Your task to perform on an android device: Show the shopping cart on amazon.com. Search for alienware area 51 on amazon.com, select the first entry, and add it to the cart. Image 0: 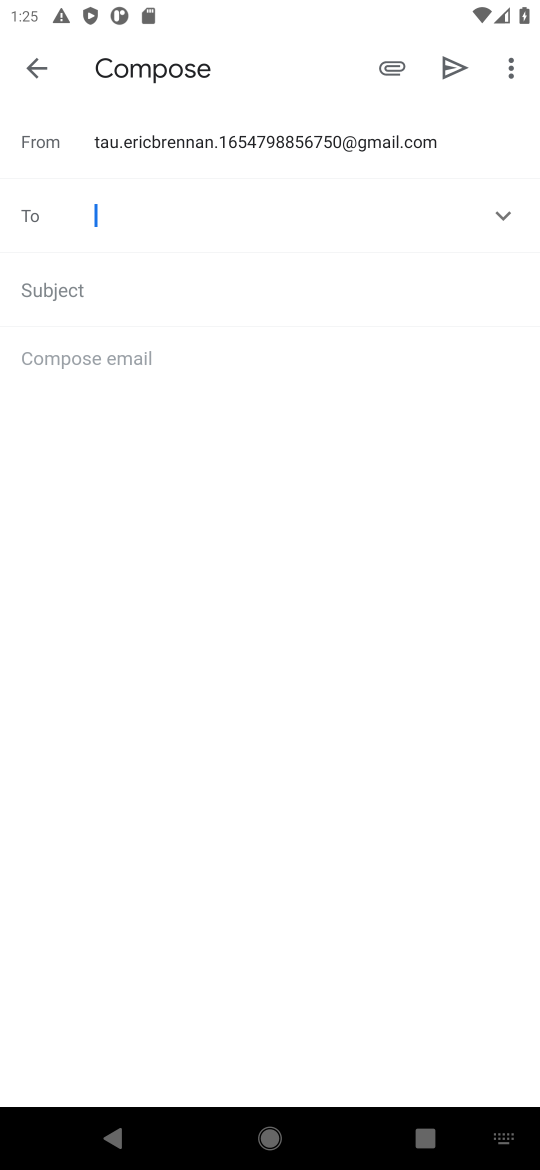
Step 0: press home button
Your task to perform on an android device: Show the shopping cart on amazon.com. Search for alienware area 51 on amazon.com, select the first entry, and add it to the cart. Image 1: 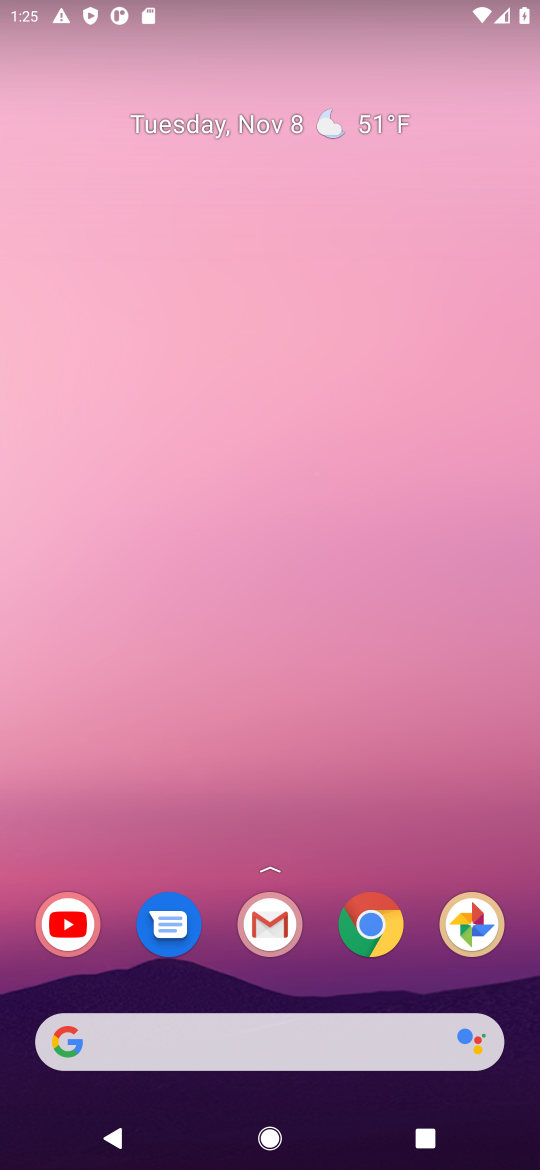
Step 1: click (365, 916)
Your task to perform on an android device: Show the shopping cart on amazon.com. Search for alienware area 51 on amazon.com, select the first entry, and add it to the cart. Image 2: 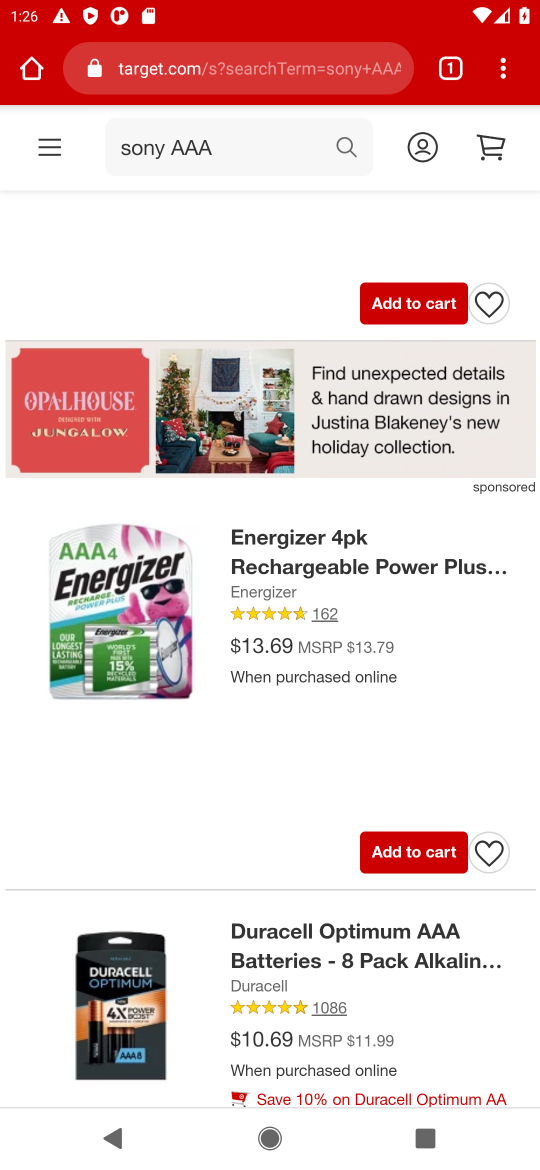
Step 2: click (272, 59)
Your task to perform on an android device: Show the shopping cart on amazon.com. Search for alienware area 51 on amazon.com, select the first entry, and add it to the cart. Image 3: 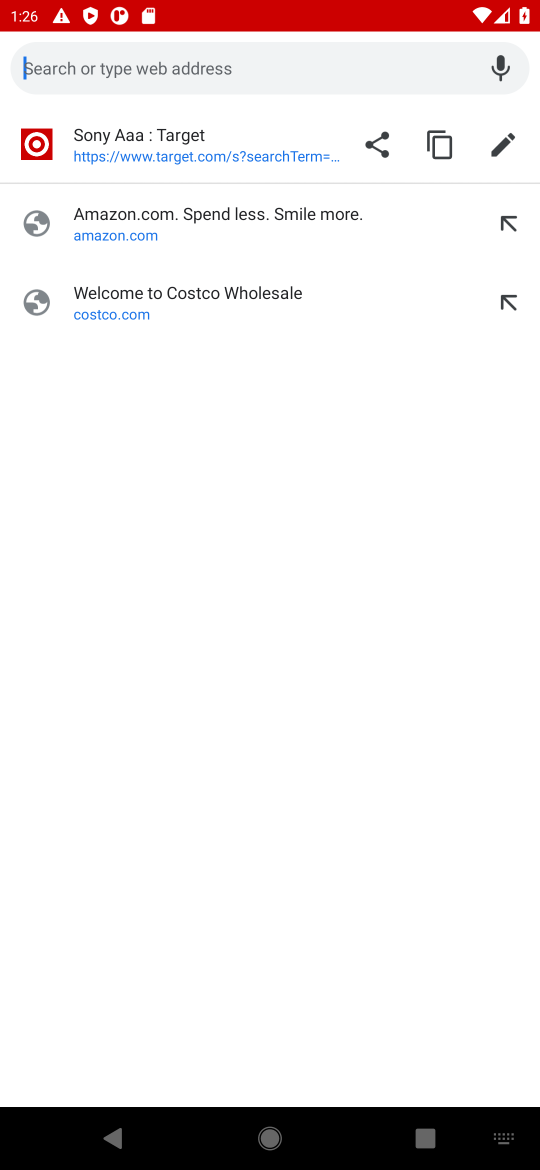
Step 3: click (113, 220)
Your task to perform on an android device: Show the shopping cart on amazon.com. Search for alienware area 51 on amazon.com, select the first entry, and add it to the cart. Image 4: 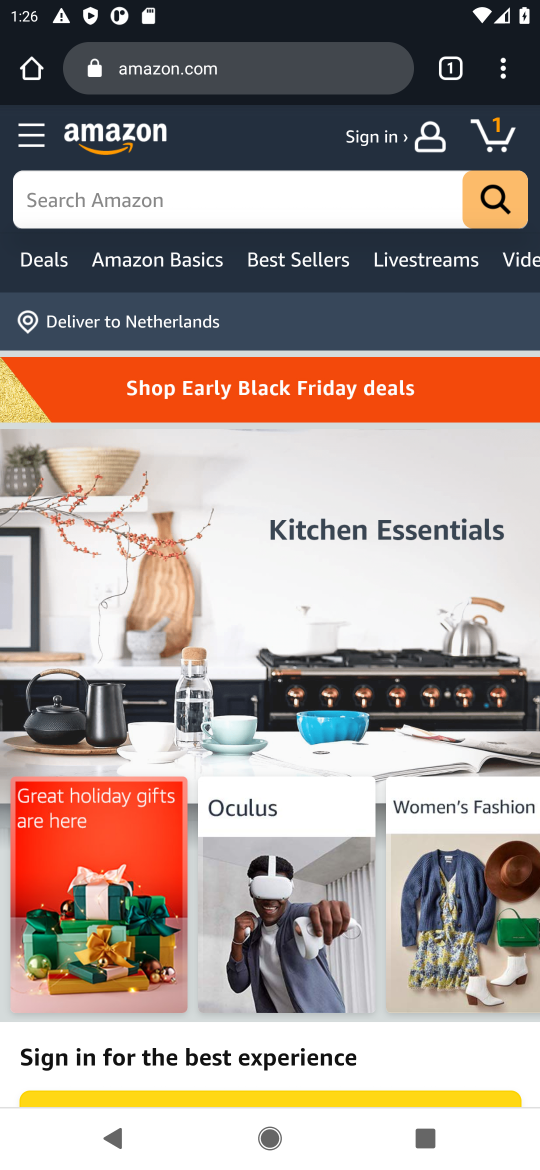
Step 4: click (489, 133)
Your task to perform on an android device: Show the shopping cart on amazon.com. Search for alienware area 51 on amazon.com, select the first entry, and add it to the cart. Image 5: 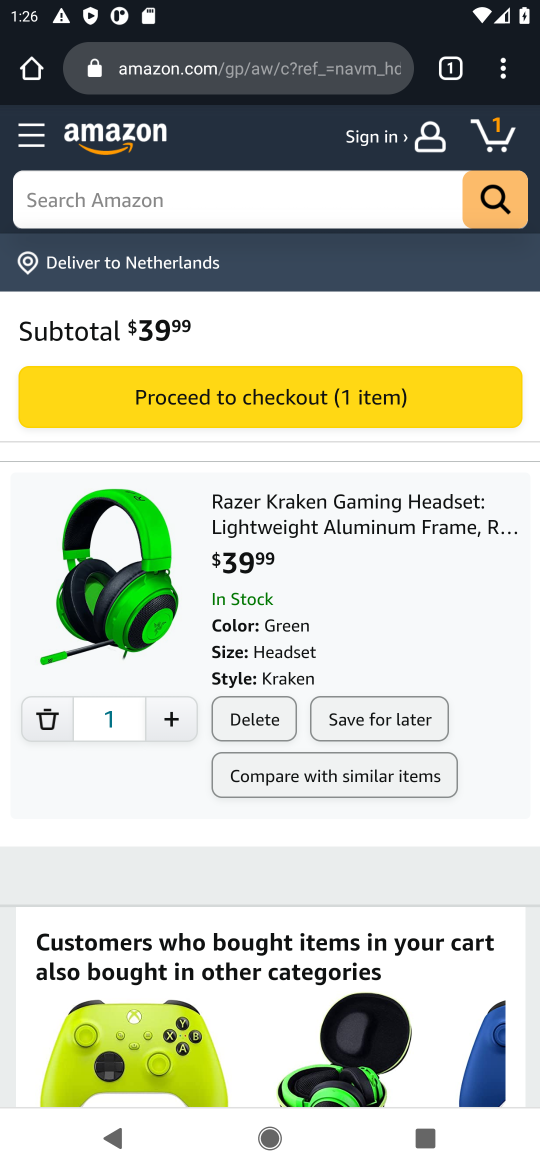
Step 5: click (89, 206)
Your task to perform on an android device: Show the shopping cart on amazon.com. Search for alienware area 51 on amazon.com, select the first entry, and add it to the cart. Image 6: 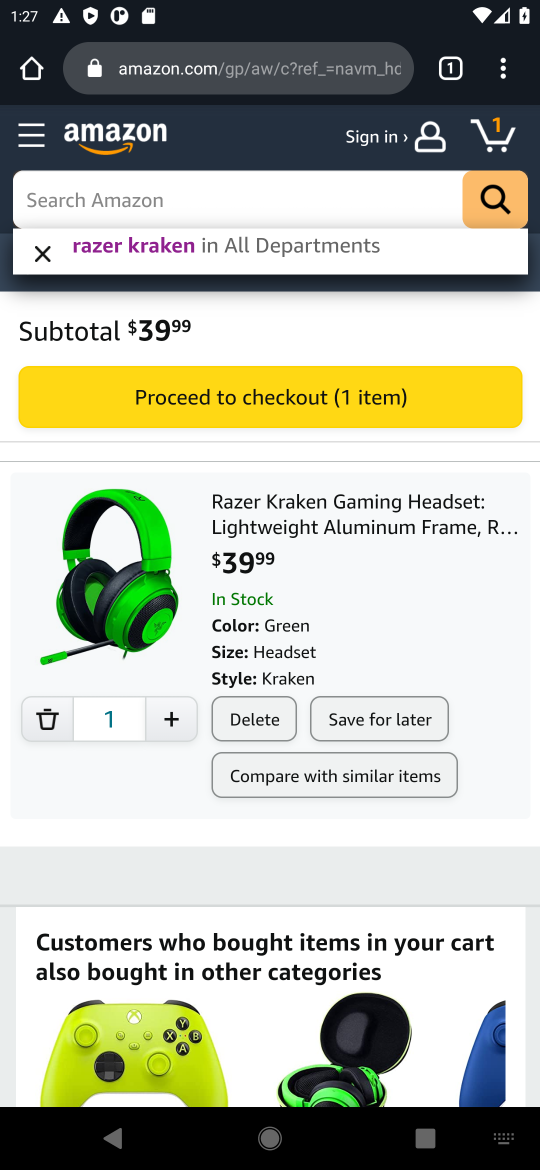
Step 6: type "alienware area 51"
Your task to perform on an android device: Show the shopping cart on amazon.com. Search for alienware area 51 on amazon.com, select the first entry, and add it to the cart. Image 7: 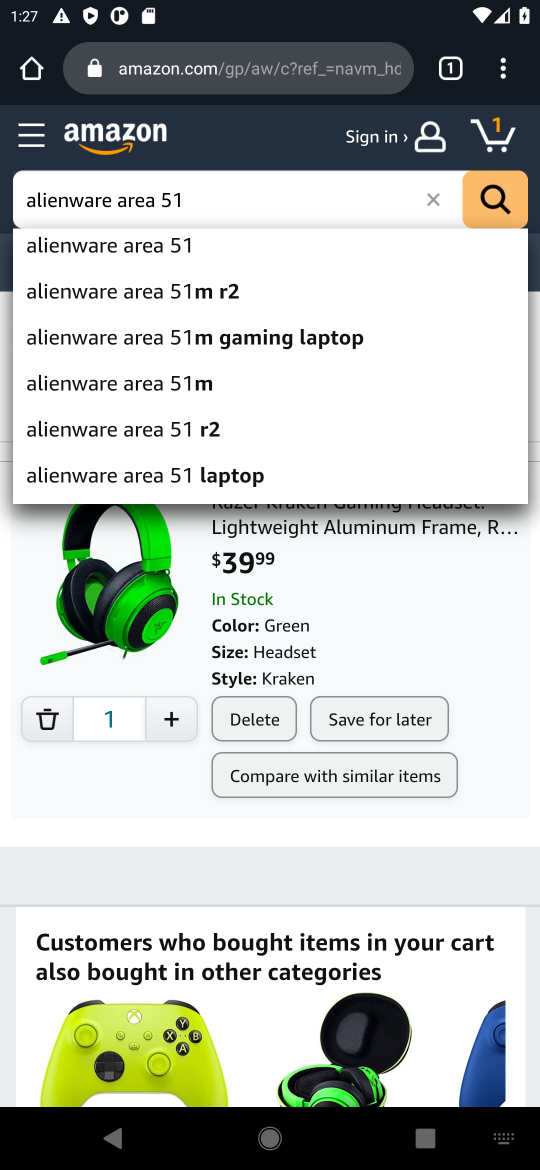
Step 7: click (465, 201)
Your task to perform on an android device: Show the shopping cart on amazon.com. Search for alienware area 51 on amazon.com, select the first entry, and add it to the cart. Image 8: 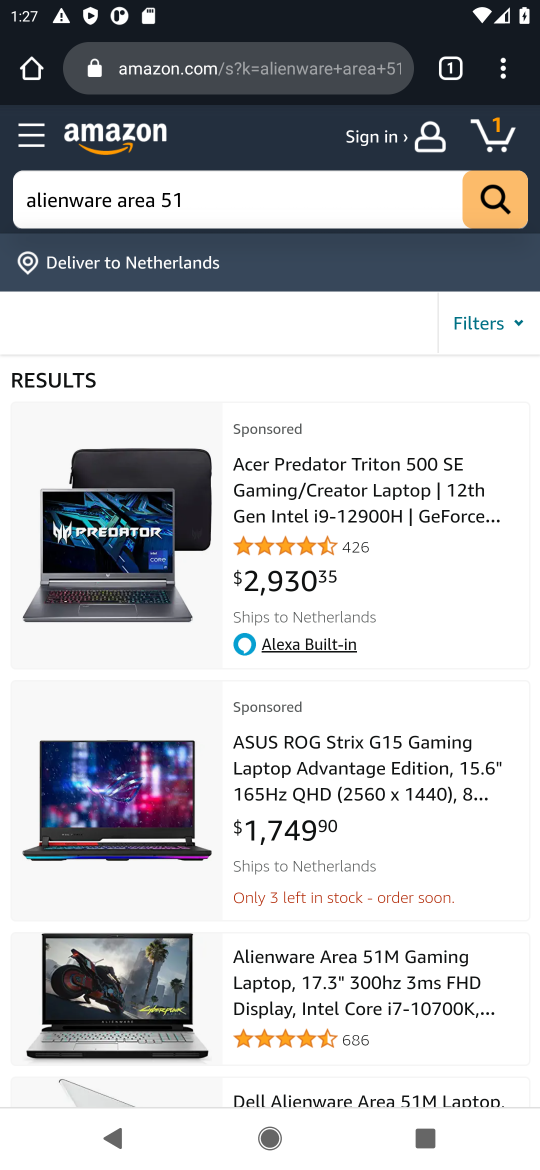
Step 8: click (375, 976)
Your task to perform on an android device: Show the shopping cart on amazon.com. Search for alienware area 51 on amazon.com, select the first entry, and add it to the cart. Image 9: 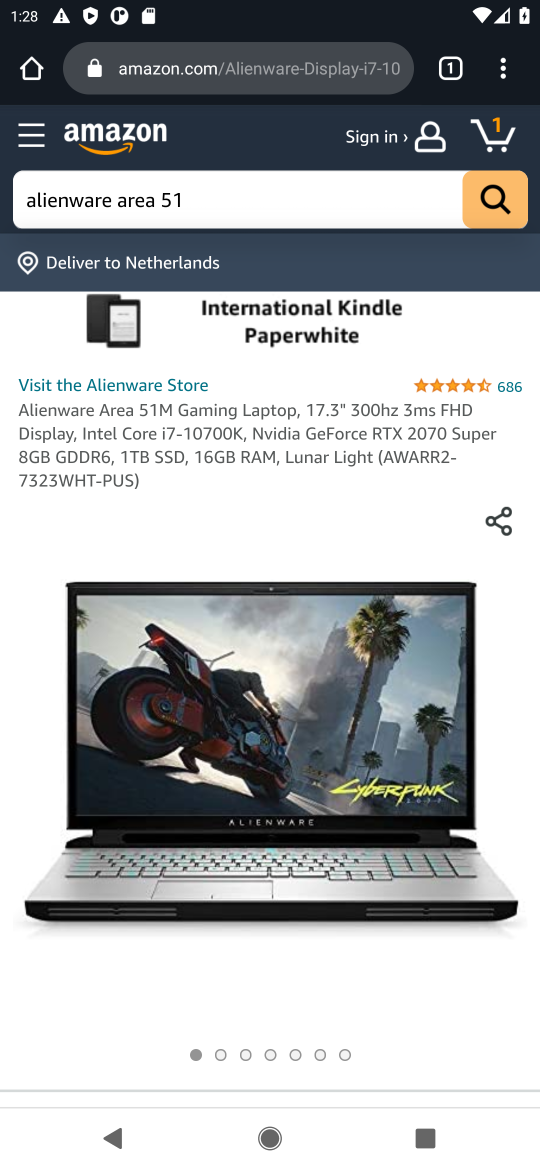
Step 9: task complete